Your task to perform on an android device: Go to Android settings Image 0: 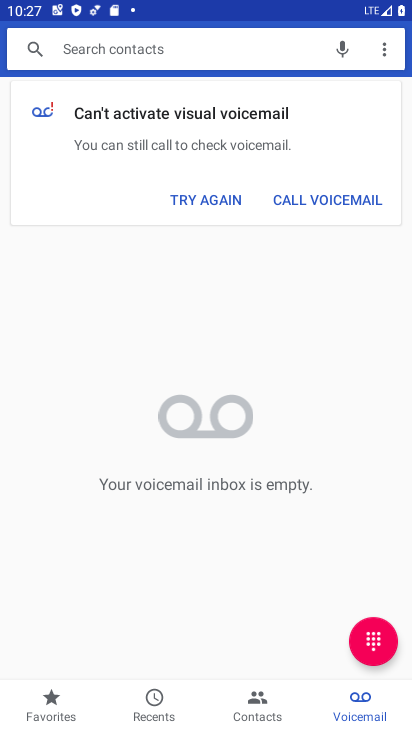
Step 0: press home button
Your task to perform on an android device: Go to Android settings Image 1: 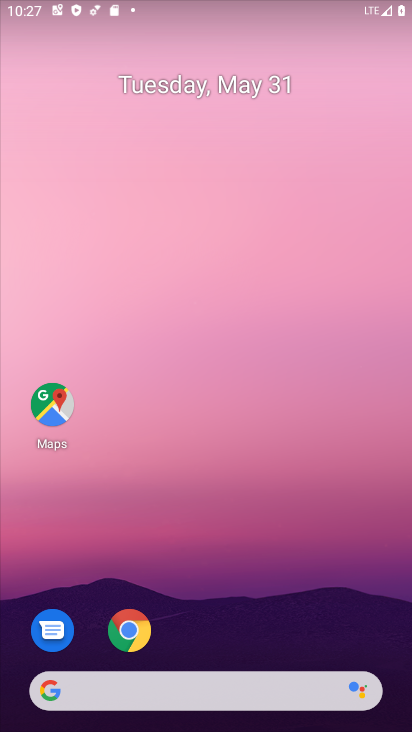
Step 1: drag from (189, 603) to (213, 173)
Your task to perform on an android device: Go to Android settings Image 2: 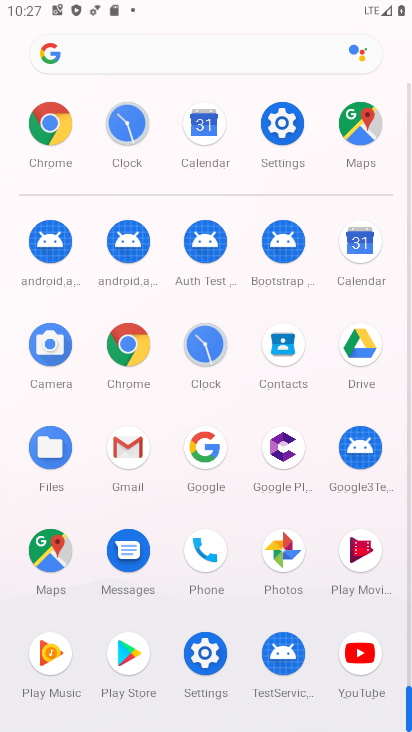
Step 2: click (285, 123)
Your task to perform on an android device: Go to Android settings Image 3: 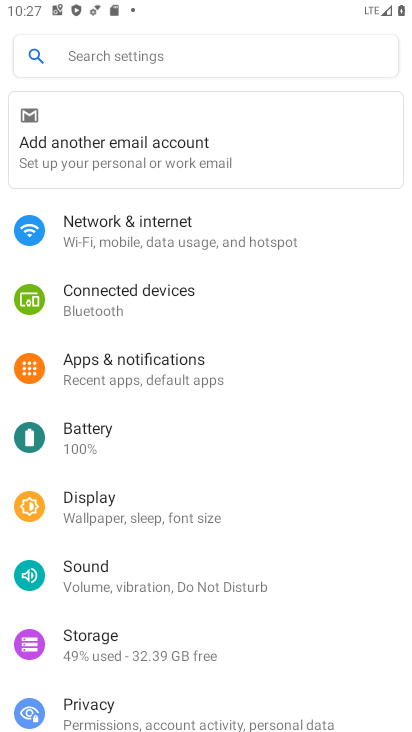
Step 3: drag from (196, 535) to (212, 162)
Your task to perform on an android device: Go to Android settings Image 4: 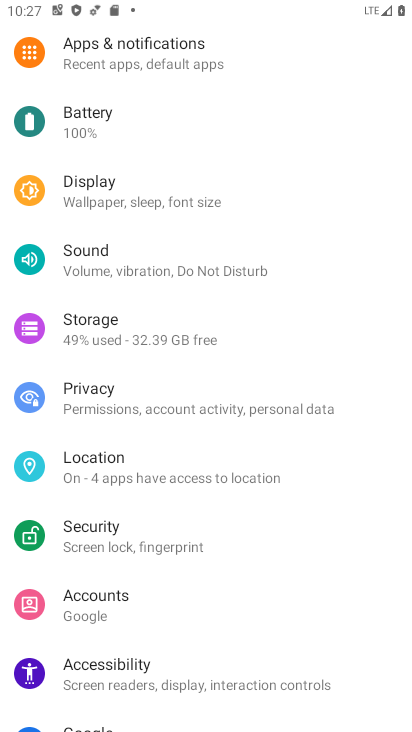
Step 4: drag from (190, 529) to (220, 181)
Your task to perform on an android device: Go to Android settings Image 5: 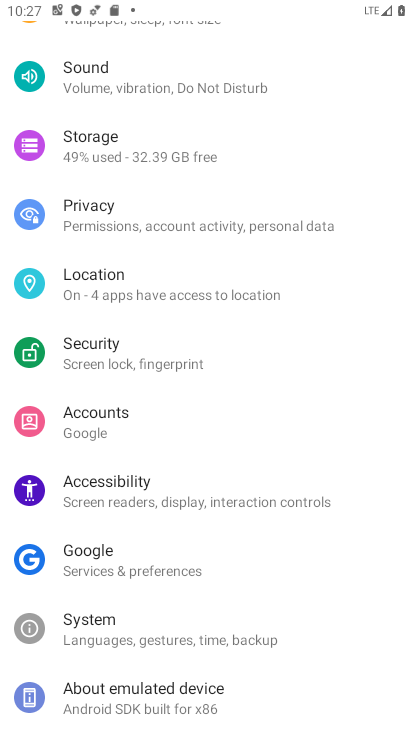
Step 5: drag from (150, 652) to (187, 318)
Your task to perform on an android device: Go to Android settings Image 6: 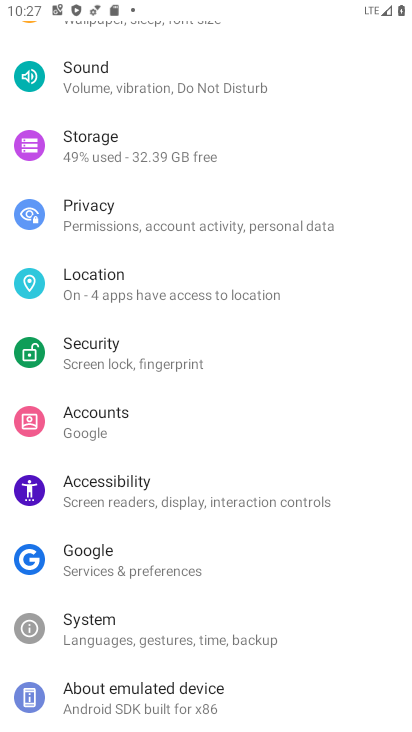
Step 6: click (173, 706)
Your task to perform on an android device: Go to Android settings Image 7: 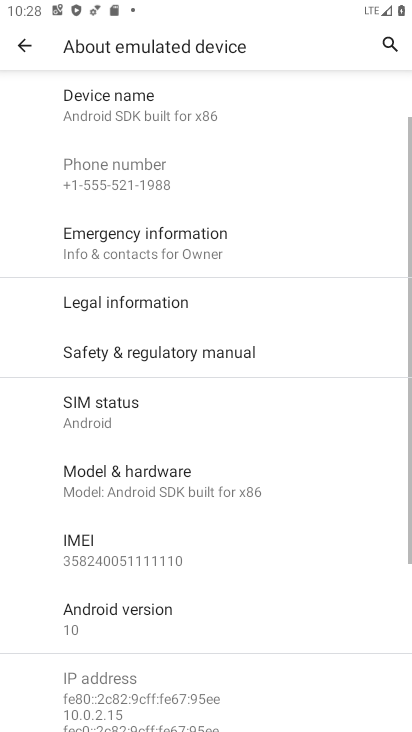
Step 7: click (180, 614)
Your task to perform on an android device: Go to Android settings Image 8: 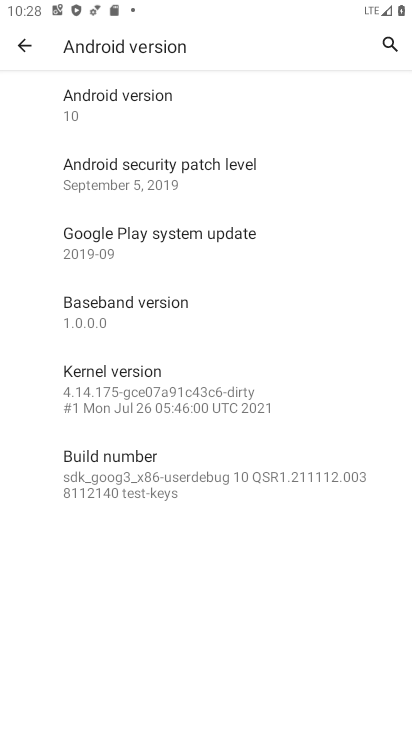
Step 8: click (200, 103)
Your task to perform on an android device: Go to Android settings Image 9: 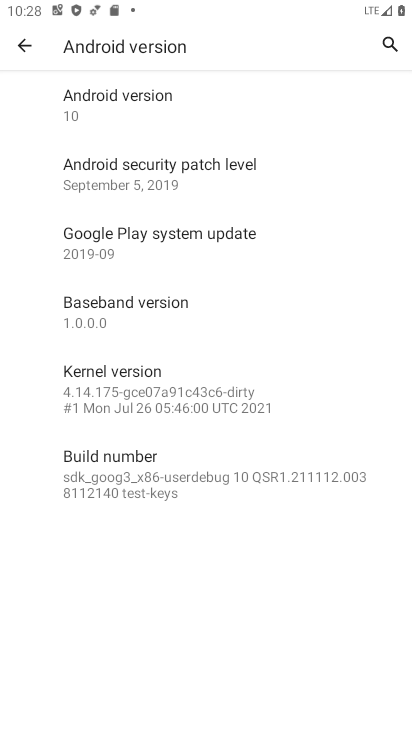
Step 9: task complete